Your task to perform on an android device: set an alarm Image 0: 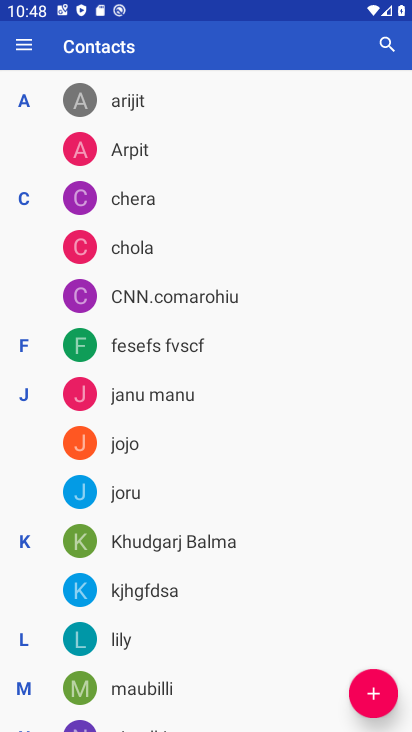
Step 0: press home button
Your task to perform on an android device: set an alarm Image 1: 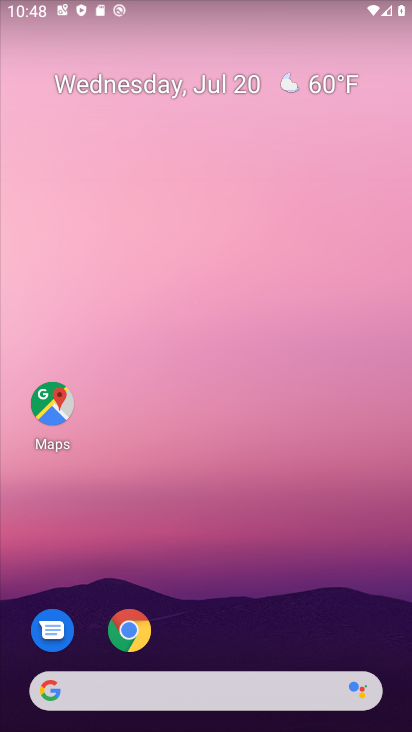
Step 1: drag from (213, 725) to (213, 219)
Your task to perform on an android device: set an alarm Image 2: 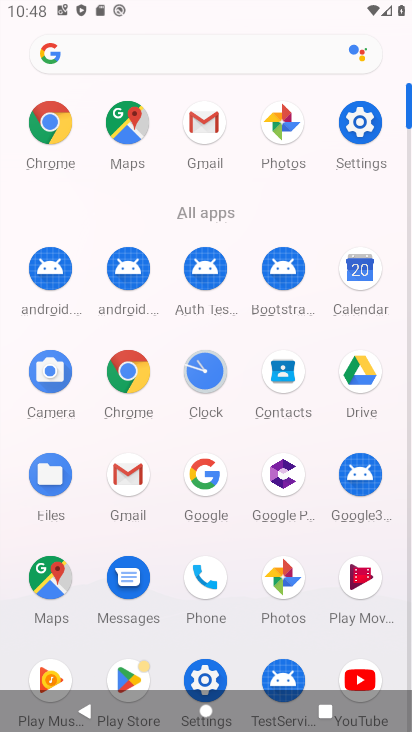
Step 2: click (208, 369)
Your task to perform on an android device: set an alarm Image 3: 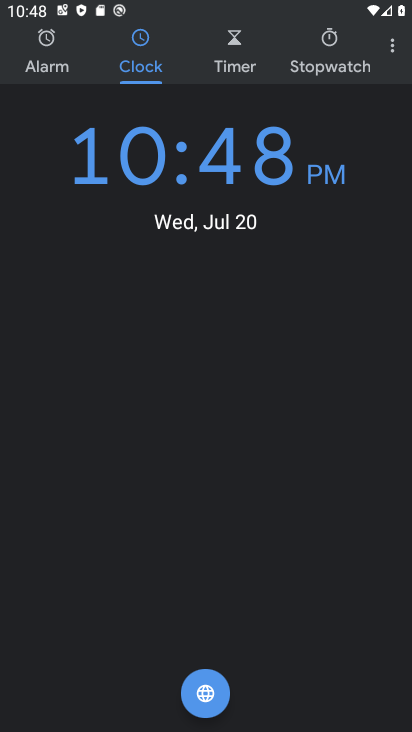
Step 3: click (56, 72)
Your task to perform on an android device: set an alarm Image 4: 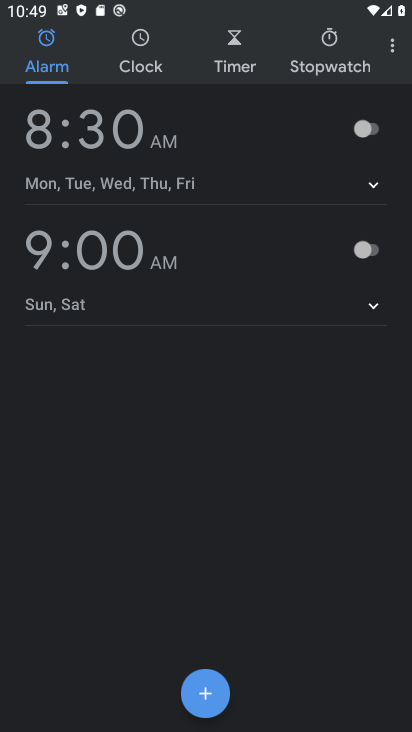
Step 4: click (201, 691)
Your task to perform on an android device: set an alarm Image 5: 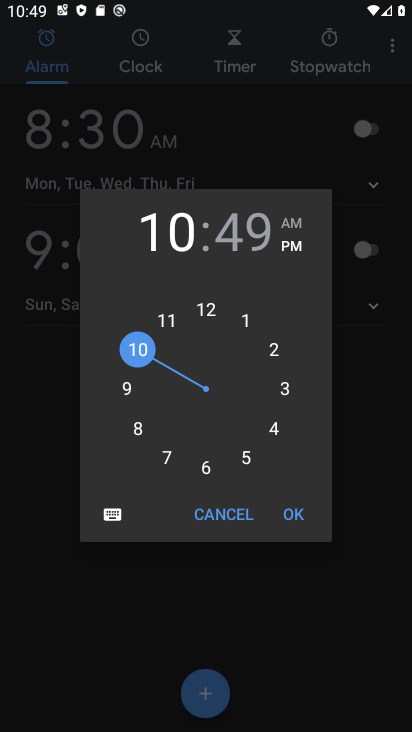
Step 5: click (209, 466)
Your task to perform on an android device: set an alarm Image 6: 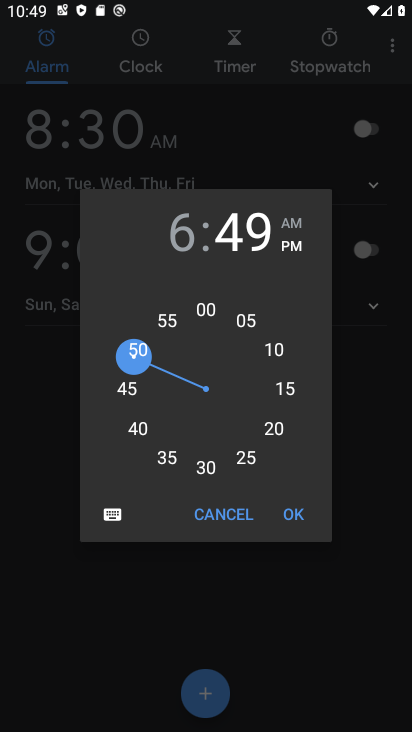
Step 6: click (198, 463)
Your task to perform on an android device: set an alarm Image 7: 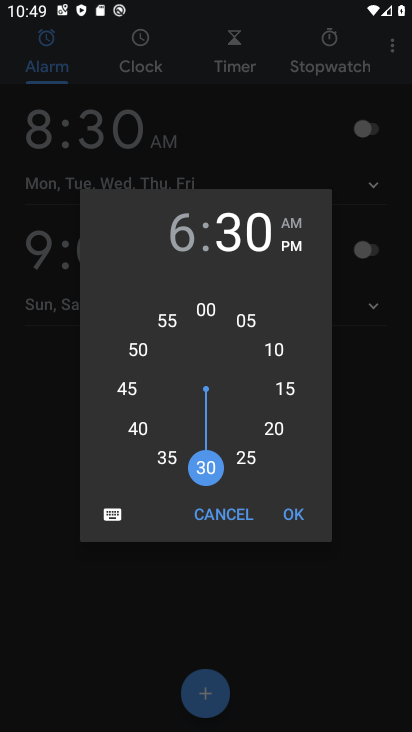
Step 7: click (289, 510)
Your task to perform on an android device: set an alarm Image 8: 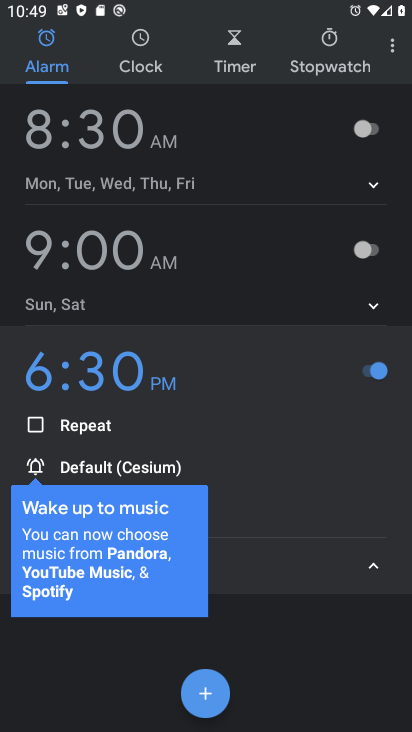
Step 8: task complete